Your task to perform on an android device: manage bookmarks in the chrome app Image 0: 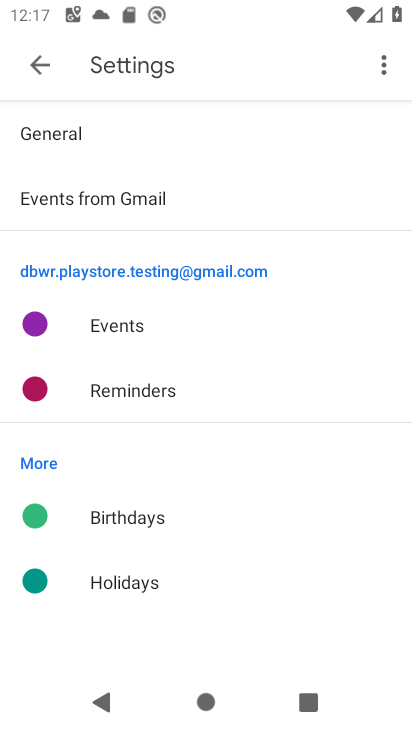
Step 0: press home button
Your task to perform on an android device: manage bookmarks in the chrome app Image 1: 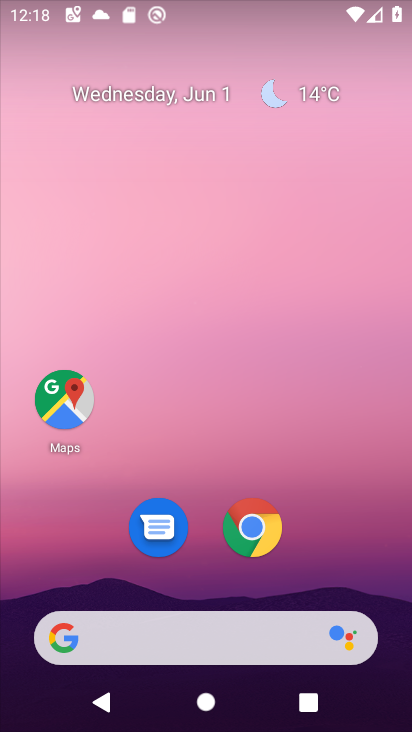
Step 1: click (250, 534)
Your task to perform on an android device: manage bookmarks in the chrome app Image 2: 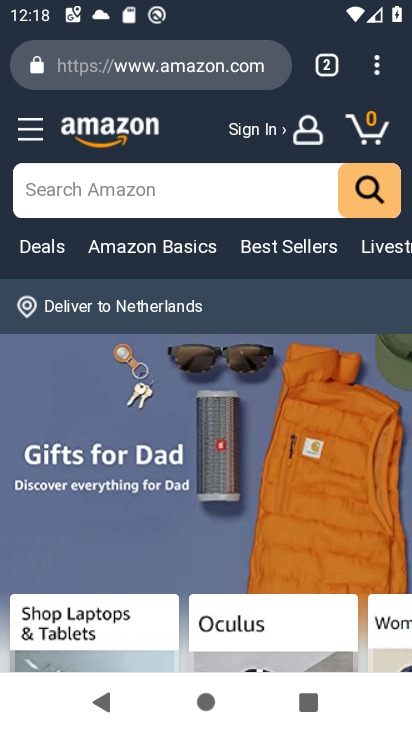
Step 2: click (379, 65)
Your task to perform on an android device: manage bookmarks in the chrome app Image 3: 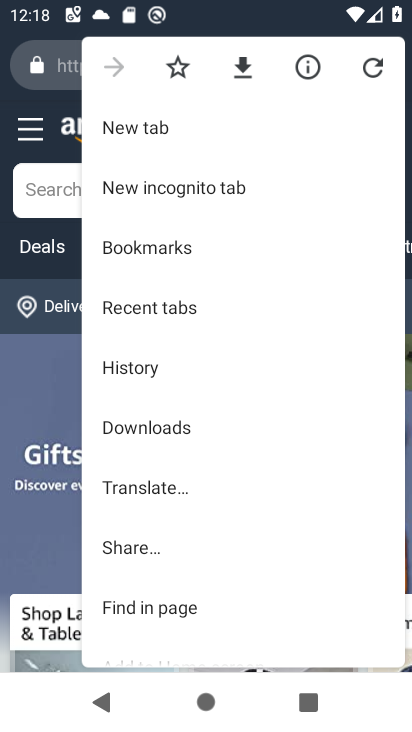
Step 3: click (146, 249)
Your task to perform on an android device: manage bookmarks in the chrome app Image 4: 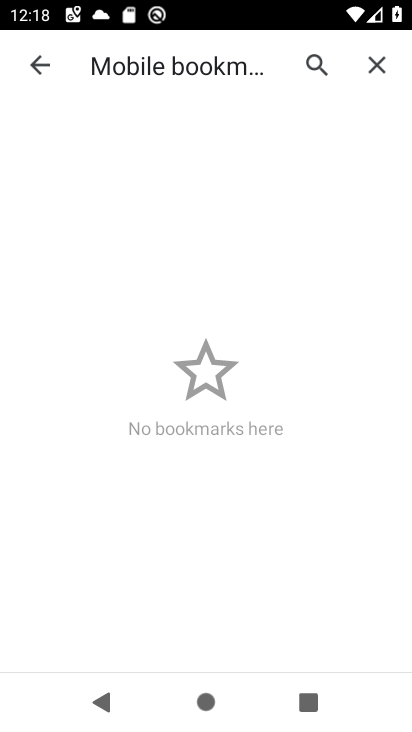
Step 4: task complete